Your task to perform on an android device: check the backup settings in the google photos Image 0: 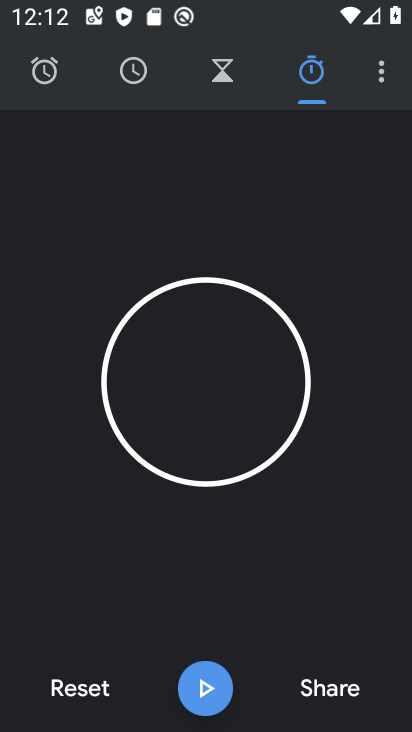
Step 0: press back button
Your task to perform on an android device: check the backup settings in the google photos Image 1: 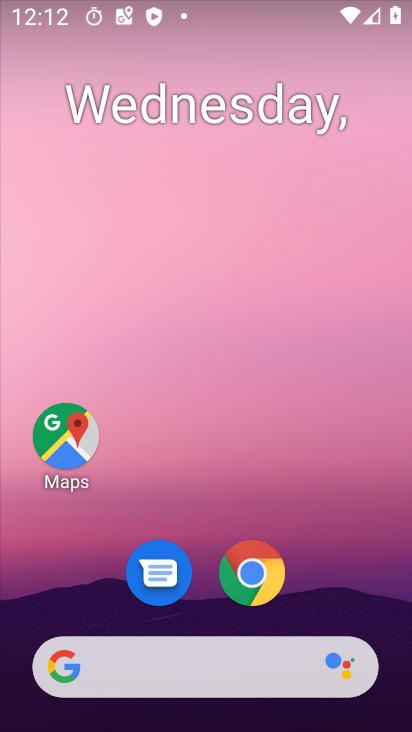
Step 1: drag from (373, 632) to (38, 46)
Your task to perform on an android device: check the backup settings in the google photos Image 2: 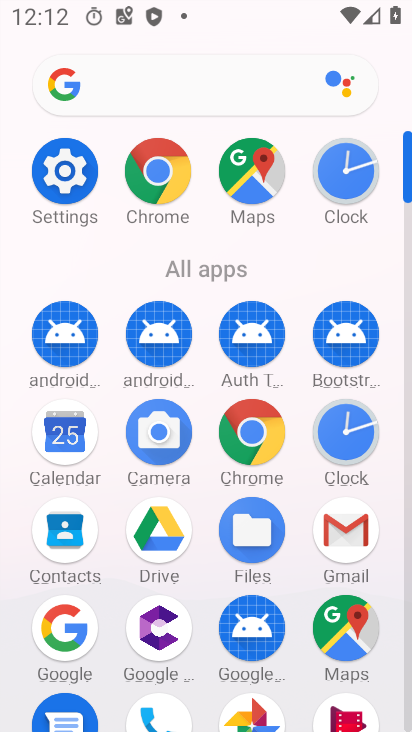
Step 2: drag from (287, 552) to (263, 108)
Your task to perform on an android device: check the backup settings in the google photos Image 3: 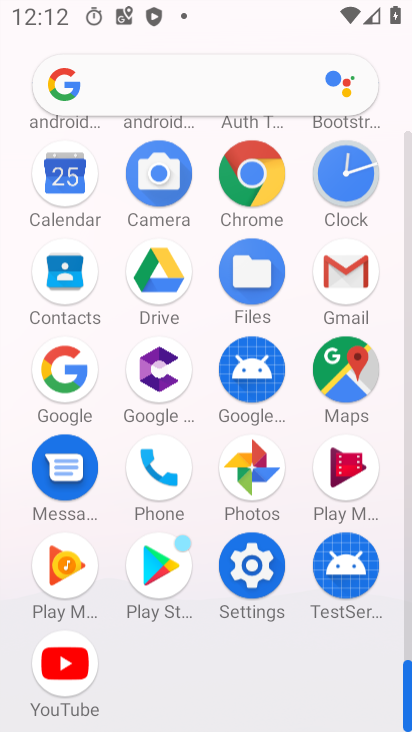
Step 3: drag from (348, 579) to (300, 176)
Your task to perform on an android device: check the backup settings in the google photos Image 4: 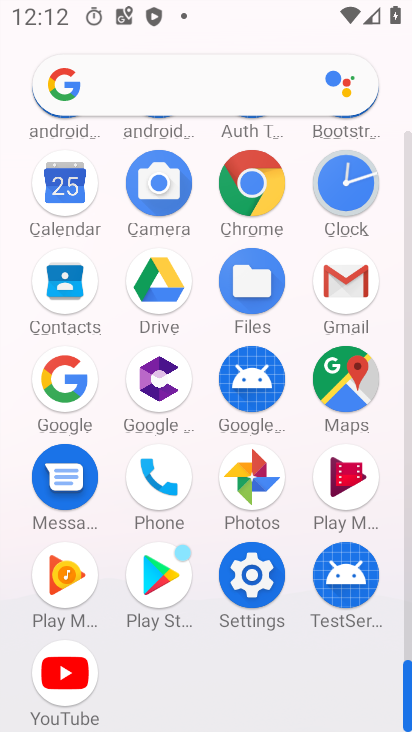
Step 4: click (261, 484)
Your task to perform on an android device: check the backup settings in the google photos Image 5: 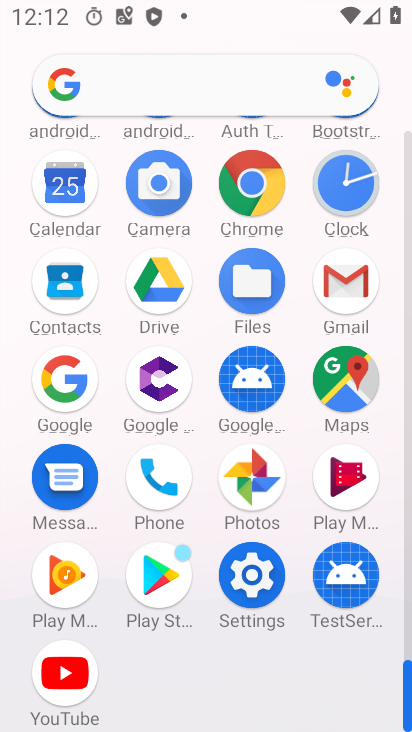
Step 5: click (261, 483)
Your task to perform on an android device: check the backup settings in the google photos Image 6: 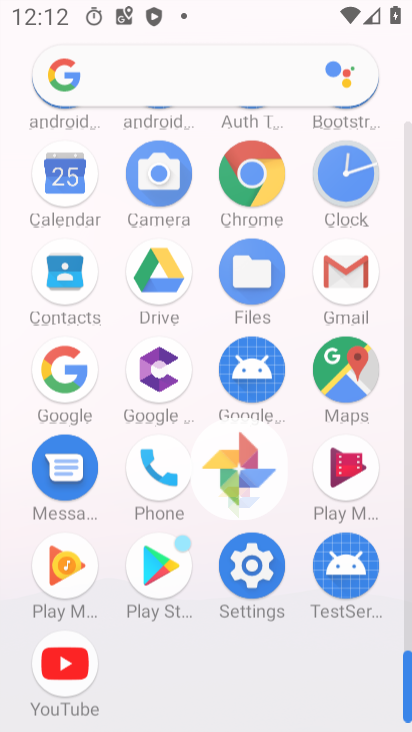
Step 6: click (261, 482)
Your task to perform on an android device: check the backup settings in the google photos Image 7: 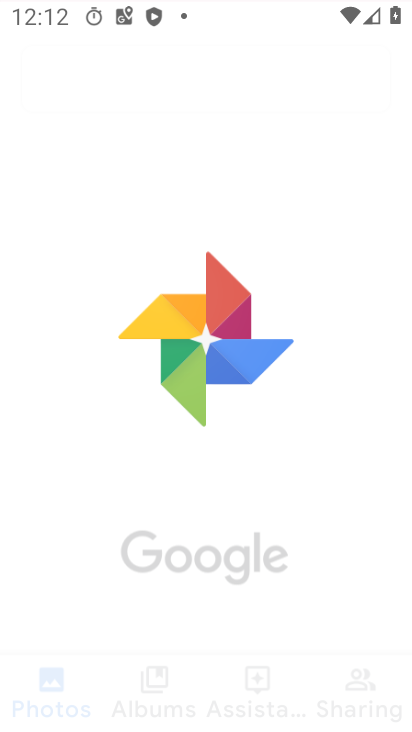
Step 7: click (260, 481)
Your task to perform on an android device: check the backup settings in the google photos Image 8: 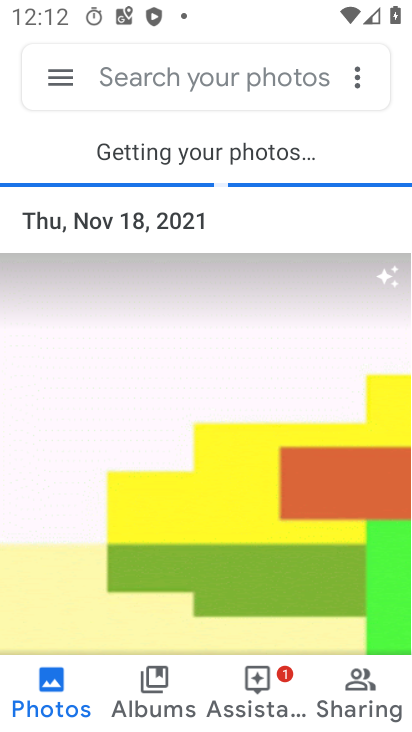
Step 8: click (66, 77)
Your task to perform on an android device: check the backup settings in the google photos Image 9: 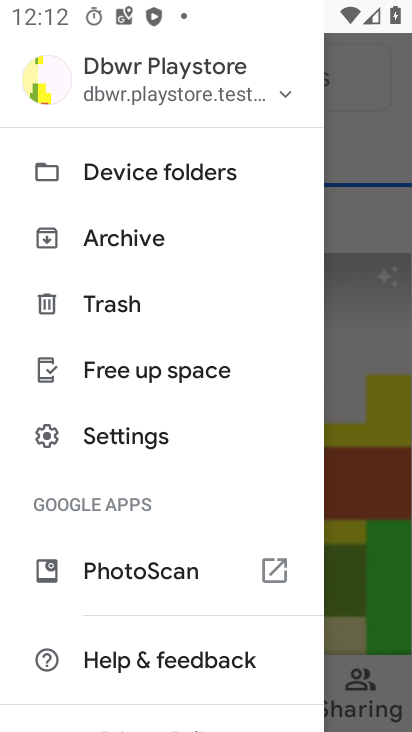
Step 9: click (127, 436)
Your task to perform on an android device: check the backup settings in the google photos Image 10: 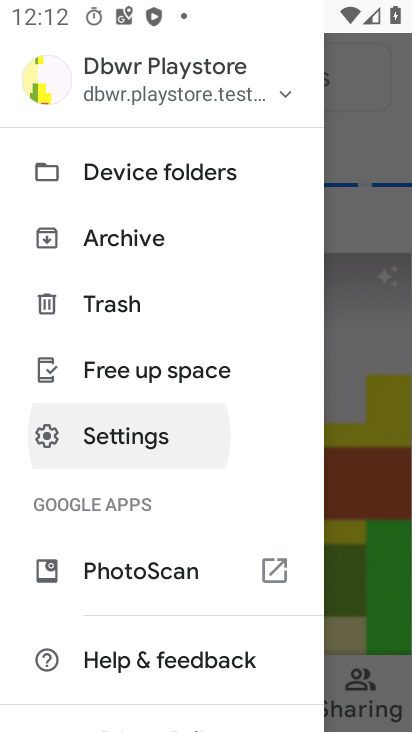
Step 10: click (127, 436)
Your task to perform on an android device: check the backup settings in the google photos Image 11: 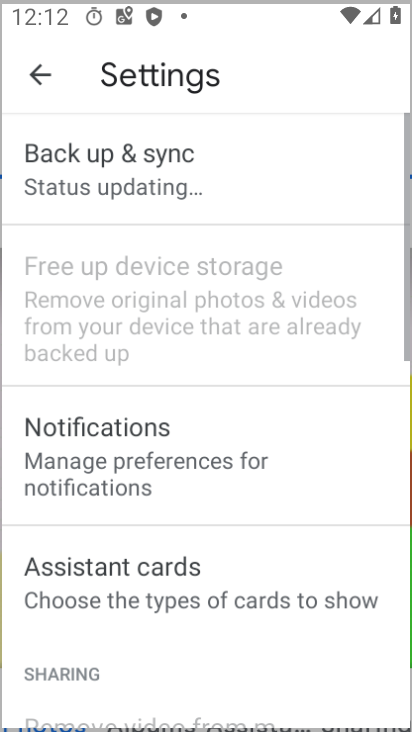
Step 11: click (127, 436)
Your task to perform on an android device: check the backup settings in the google photos Image 12: 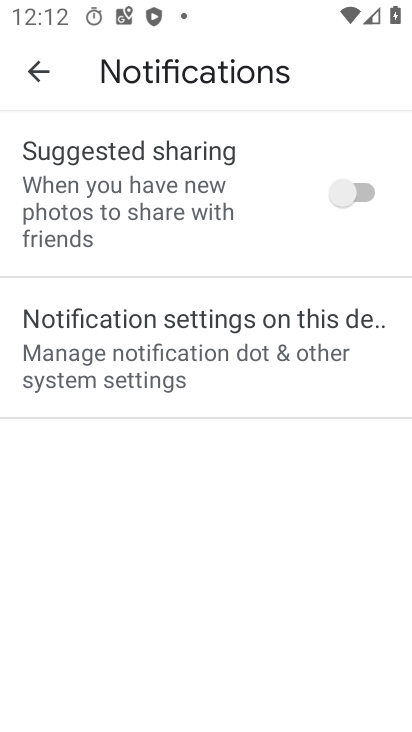
Step 12: click (96, 199)
Your task to perform on an android device: check the backup settings in the google photos Image 13: 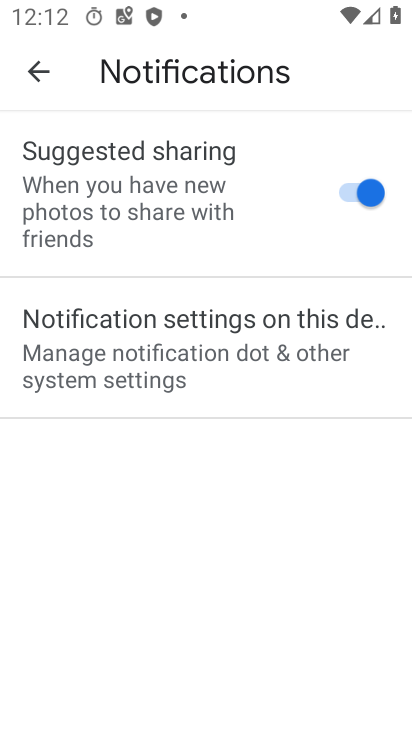
Step 13: click (36, 69)
Your task to perform on an android device: check the backup settings in the google photos Image 14: 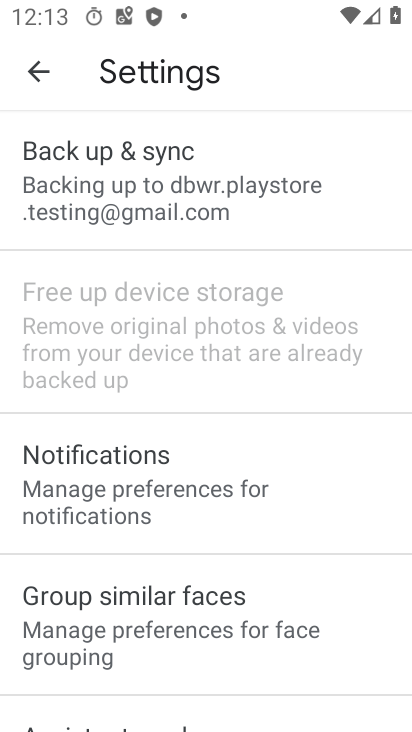
Step 14: click (106, 178)
Your task to perform on an android device: check the backup settings in the google photos Image 15: 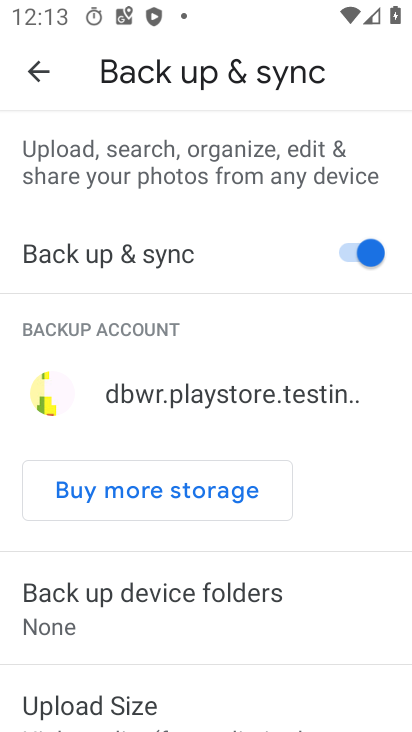
Step 15: click (132, 322)
Your task to perform on an android device: check the backup settings in the google photos Image 16: 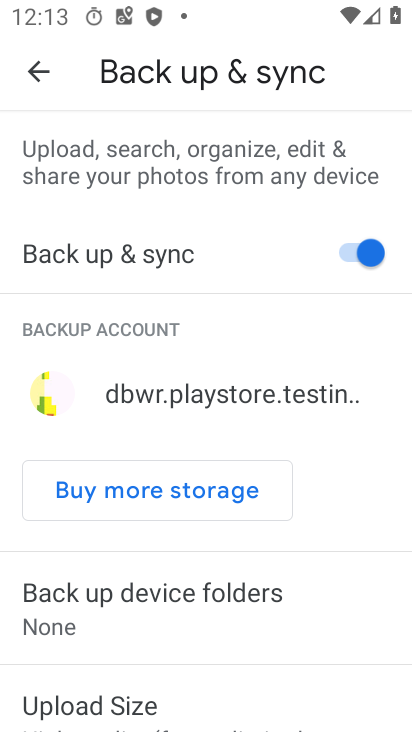
Step 16: task complete